Your task to perform on an android device: Open calendar and show me the third week of next month Image 0: 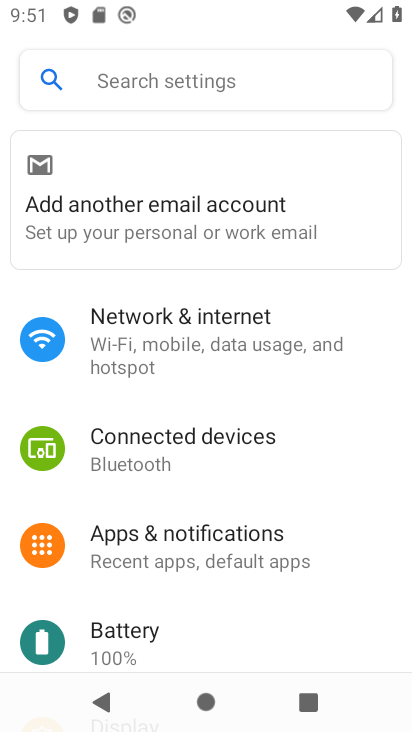
Step 0: press back button
Your task to perform on an android device: Open calendar and show me the third week of next month Image 1: 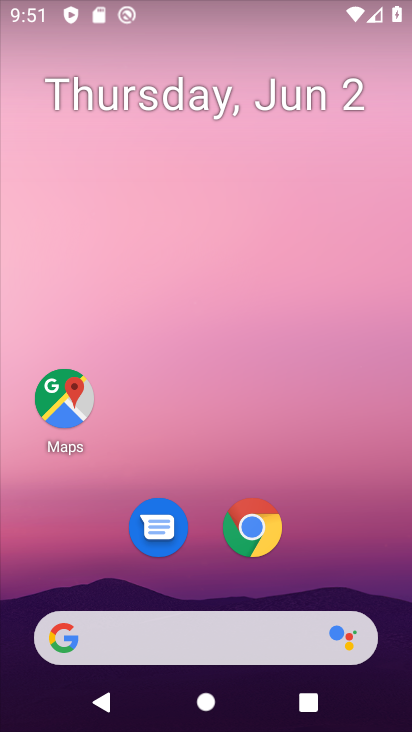
Step 1: drag from (317, 531) to (236, 32)
Your task to perform on an android device: Open calendar and show me the third week of next month Image 2: 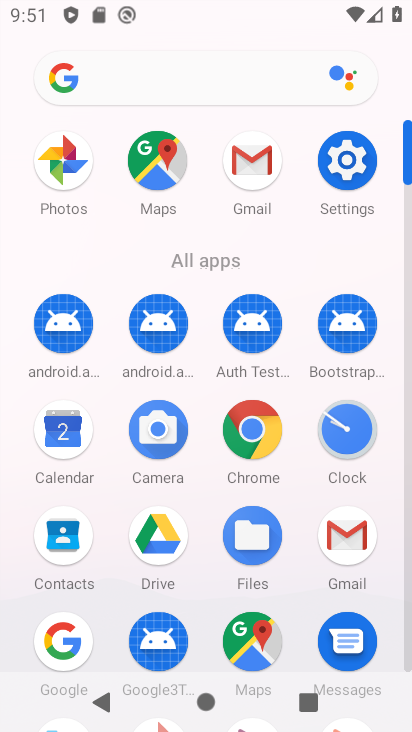
Step 2: click (63, 430)
Your task to perform on an android device: Open calendar and show me the third week of next month Image 3: 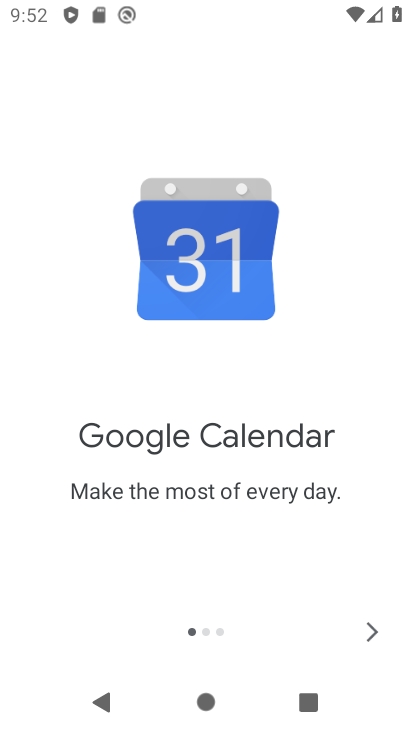
Step 3: click (372, 632)
Your task to perform on an android device: Open calendar and show me the third week of next month Image 4: 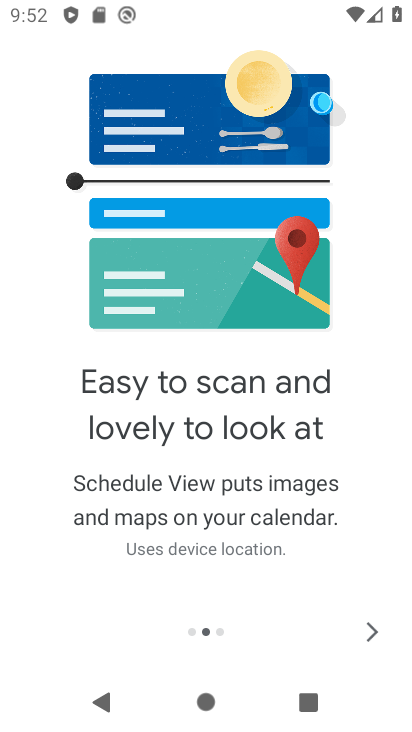
Step 4: click (372, 632)
Your task to perform on an android device: Open calendar and show me the third week of next month Image 5: 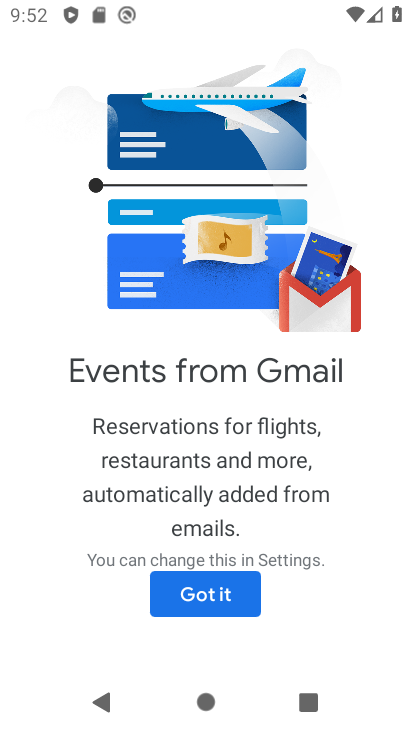
Step 5: click (202, 593)
Your task to perform on an android device: Open calendar and show me the third week of next month Image 6: 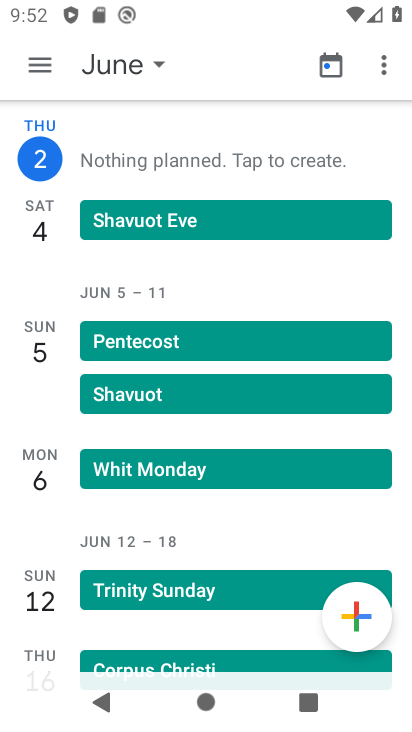
Step 6: click (155, 61)
Your task to perform on an android device: Open calendar and show me the third week of next month Image 7: 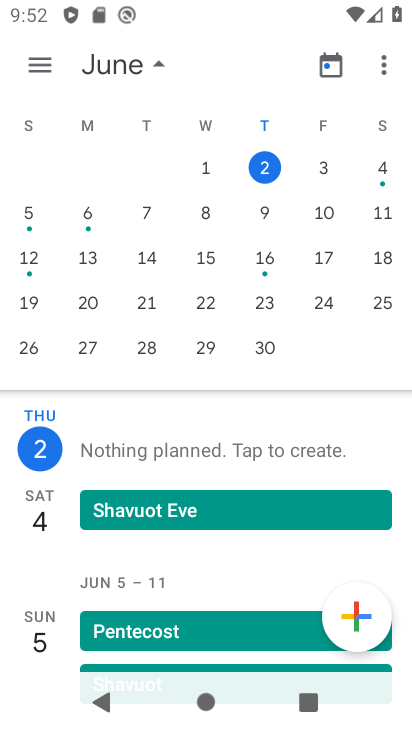
Step 7: drag from (360, 232) to (0, 324)
Your task to perform on an android device: Open calendar and show me the third week of next month Image 8: 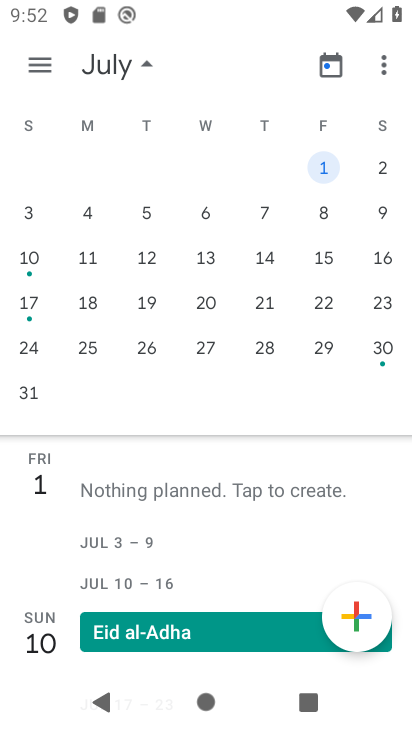
Step 8: click (99, 310)
Your task to perform on an android device: Open calendar and show me the third week of next month Image 9: 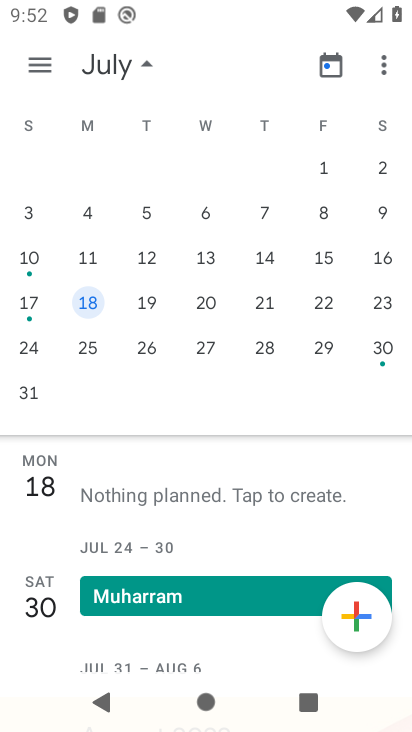
Step 9: click (50, 67)
Your task to perform on an android device: Open calendar and show me the third week of next month Image 10: 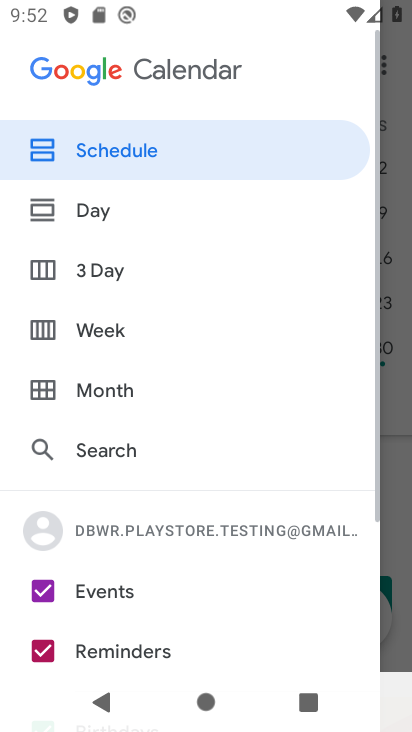
Step 10: click (101, 337)
Your task to perform on an android device: Open calendar and show me the third week of next month Image 11: 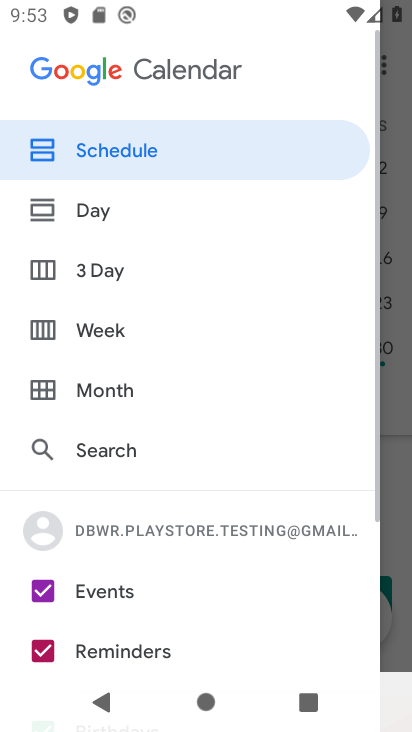
Step 11: click (114, 331)
Your task to perform on an android device: Open calendar and show me the third week of next month Image 12: 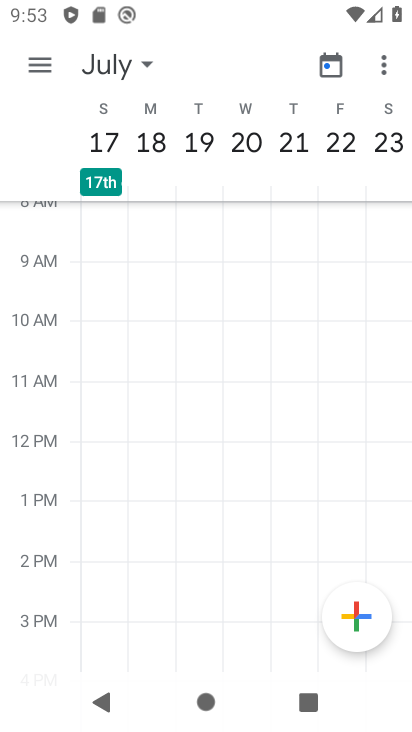
Step 12: task complete